Your task to perform on an android device: Go to eBay Image 0: 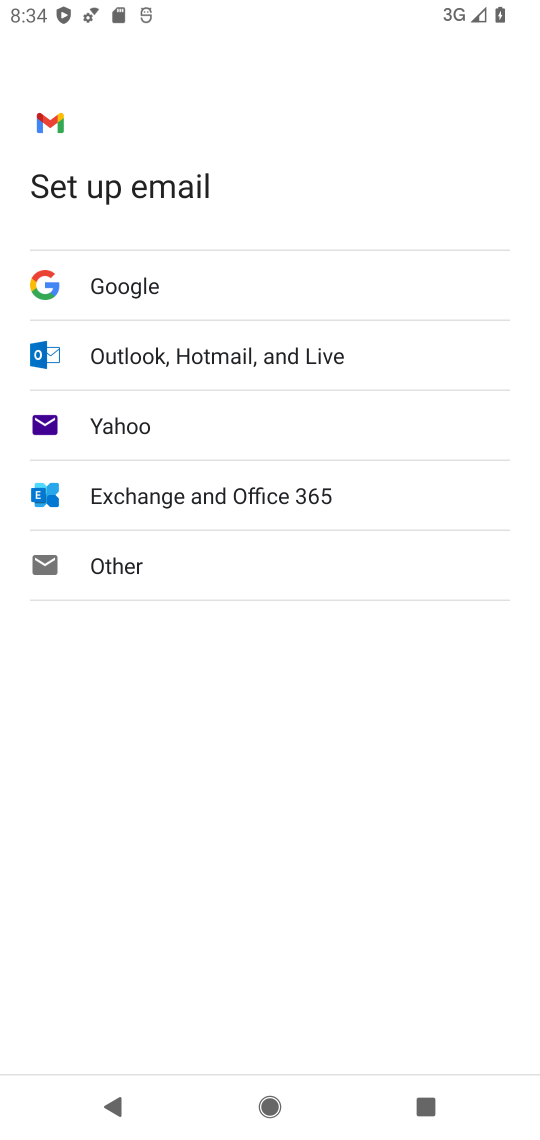
Step 0: press home button
Your task to perform on an android device: Go to eBay Image 1: 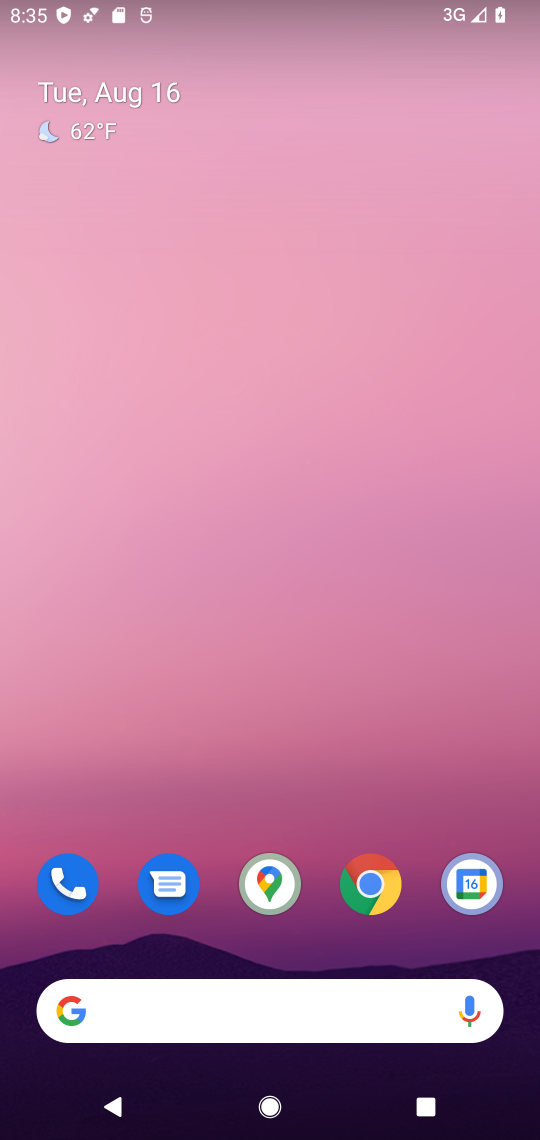
Step 1: click (366, 889)
Your task to perform on an android device: Go to eBay Image 2: 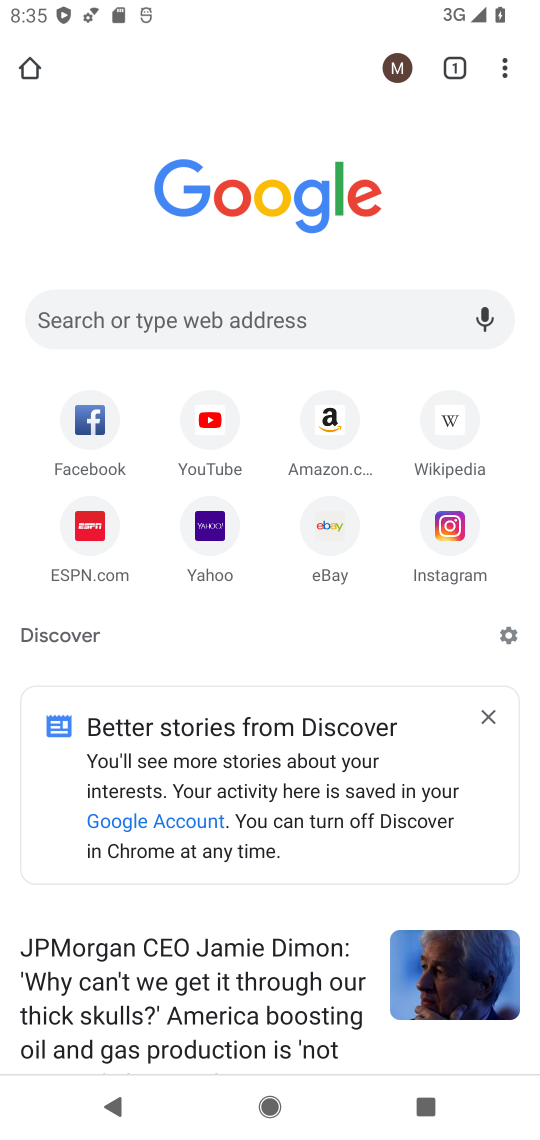
Step 2: click (239, 304)
Your task to perform on an android device: Go to eBay Image 3: 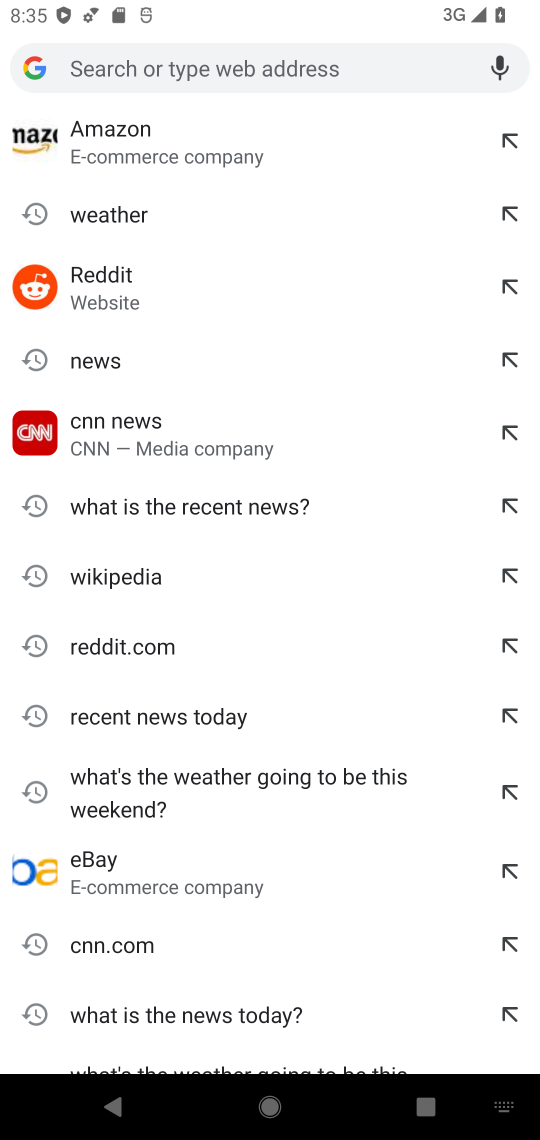
Step 3: type "ebay"
Your task to perform on an android device: Go to eBay Image 4: 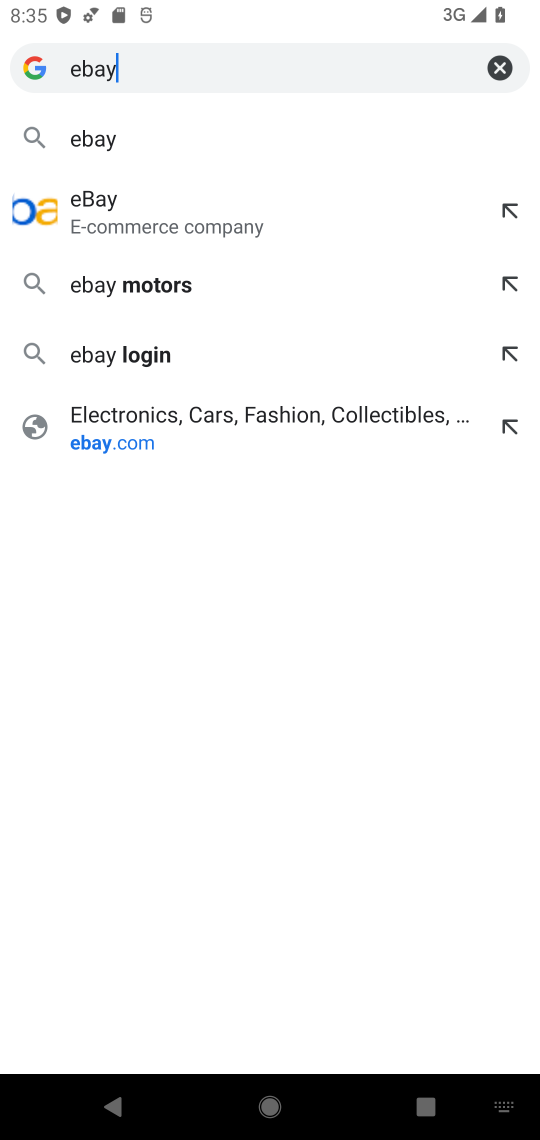
Step 4: click (100, 130)
Your task to perform on an android device: Go to eBay Image 5: 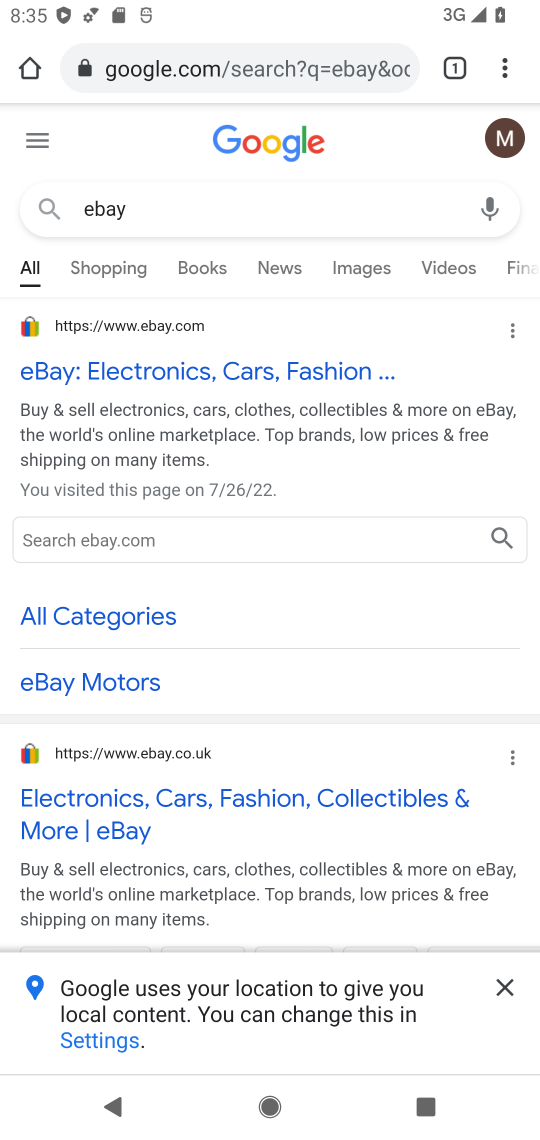
Step 5: click (131, 371)
Your task to perform on an android device: Go to eBay Image 6: 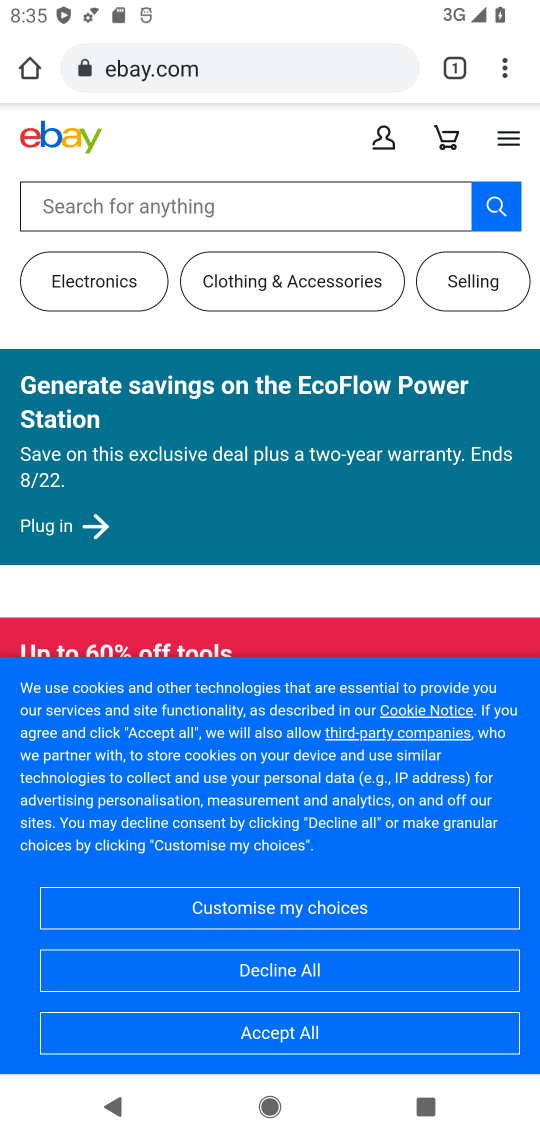
Step 6: click (279, 1026)
Your task to perform on an android device: Go to eBay Image 7: 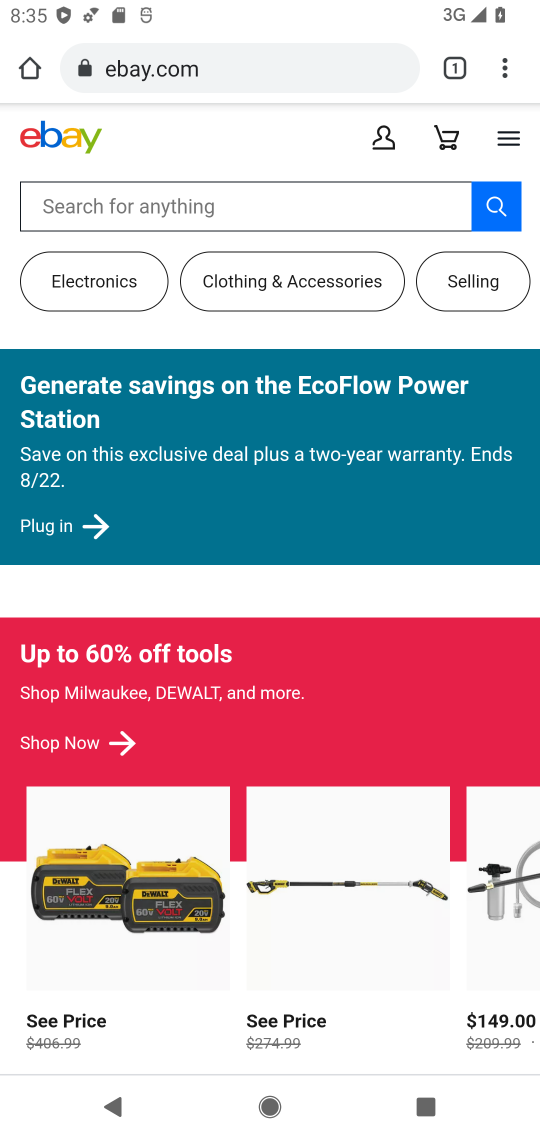
Step 7: task complete